Your task to perform on an android device: Open Google Maps Image 0: 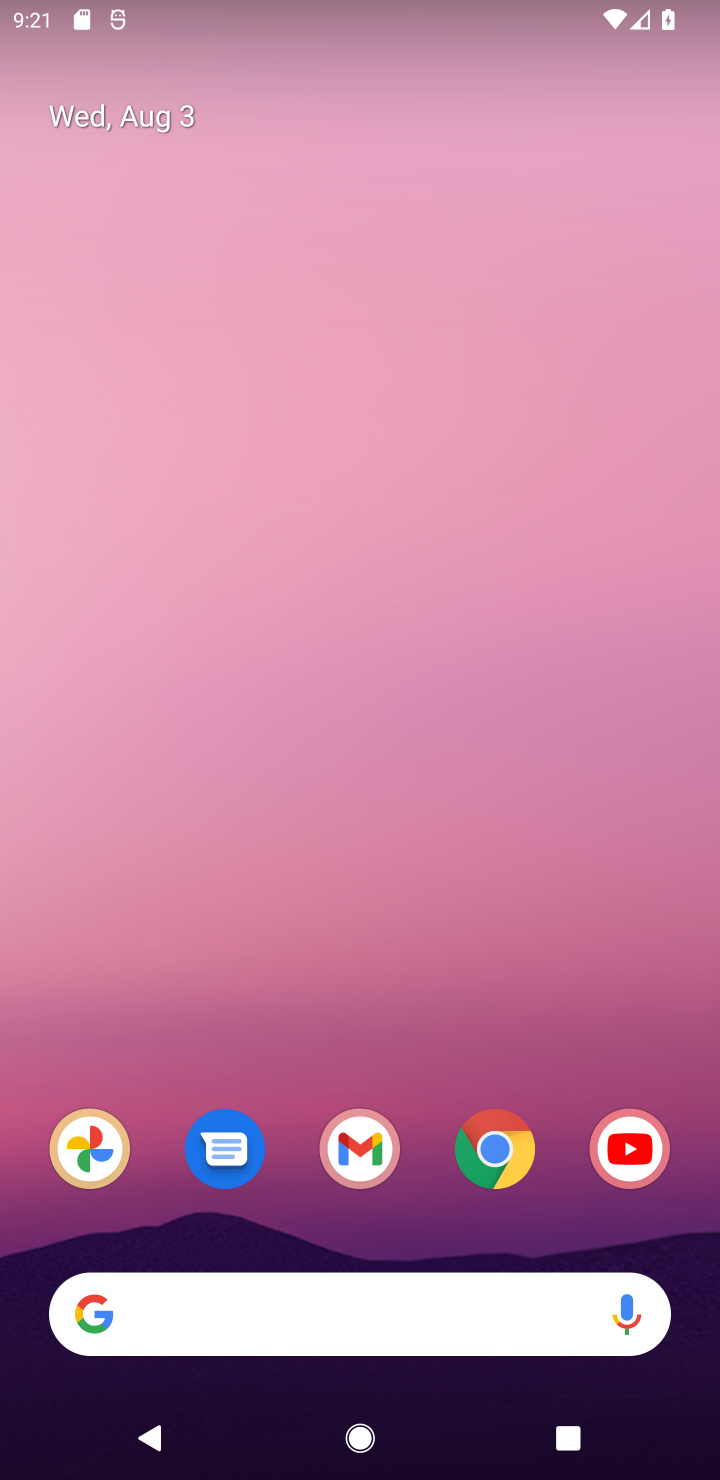
Step 0: drag from (421, 1067) to (237, 224)
Your task to perform on an android device: Open Google Maps Image 1: 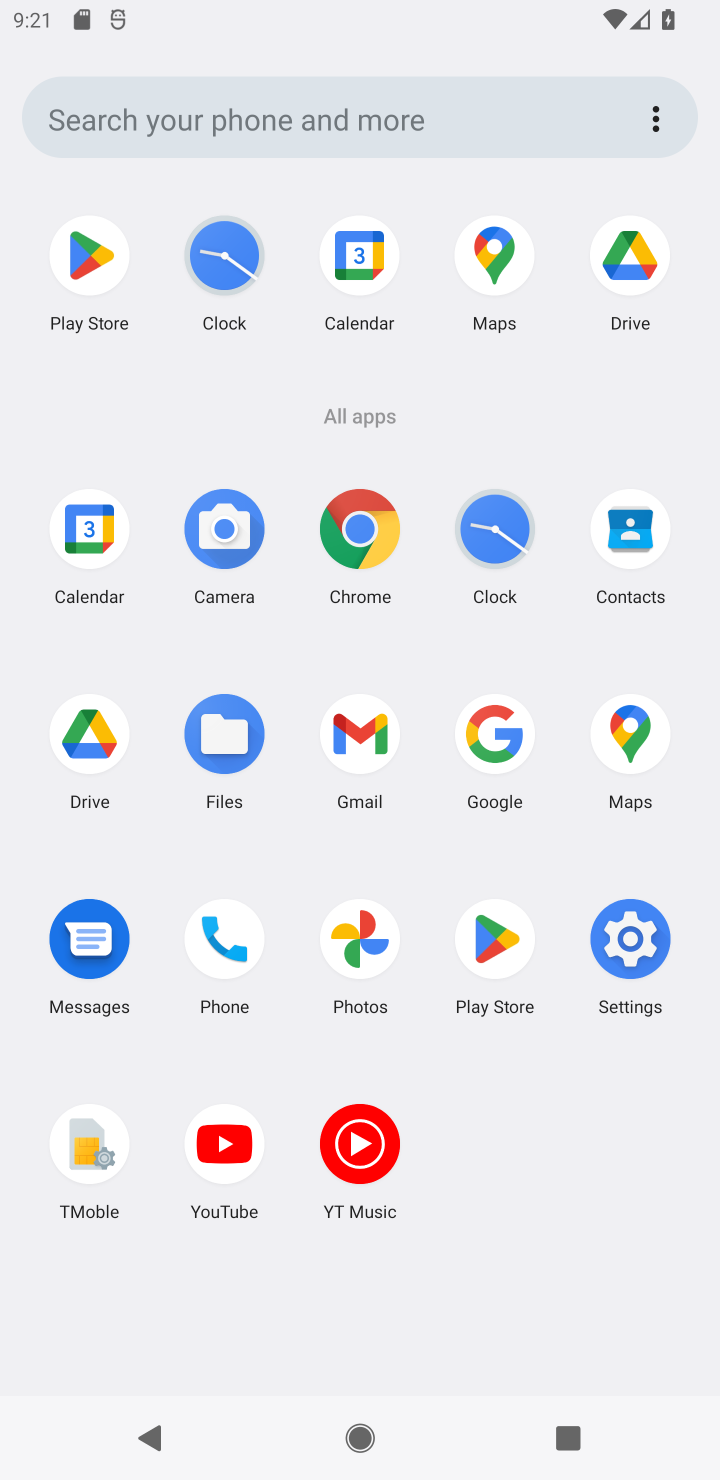
Step 1: click (508, 237)
Your task to perform on an android device: Open Google Maps Image 2: 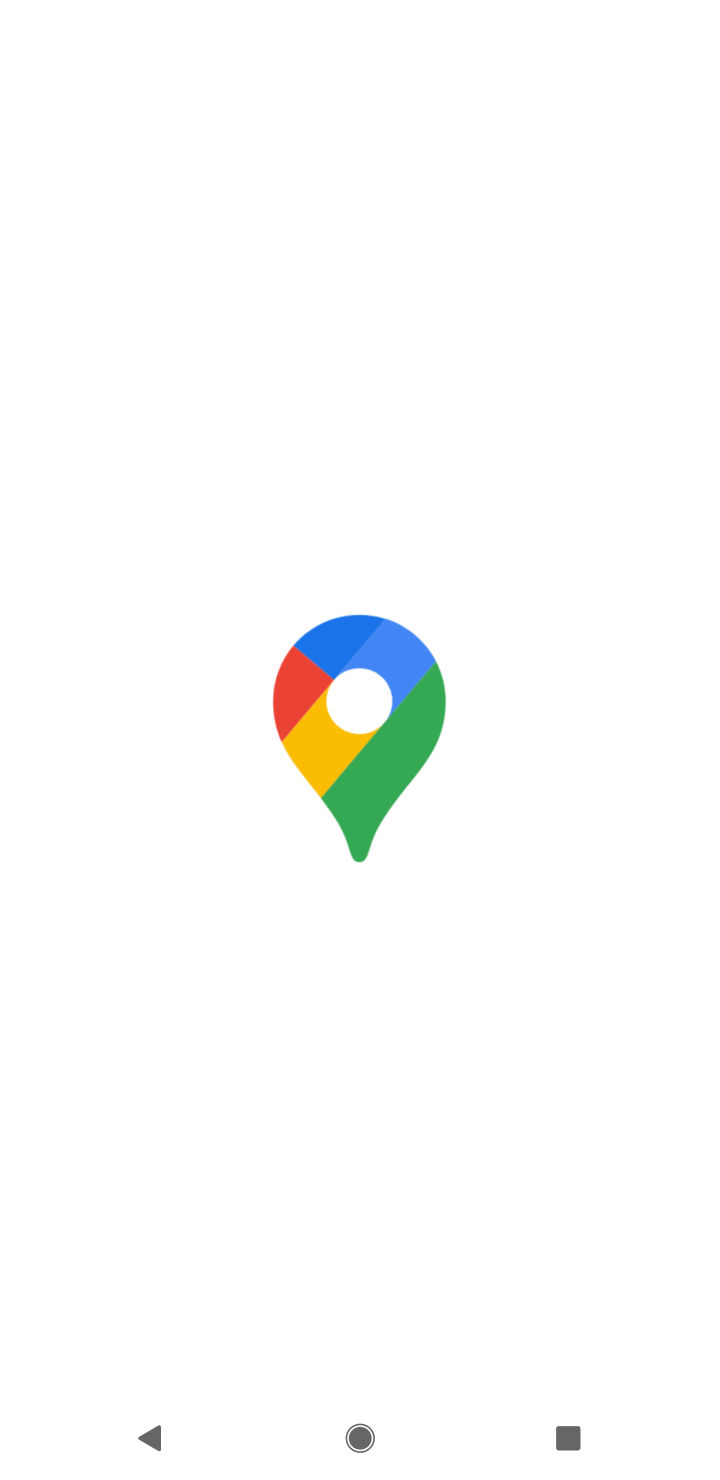
Step 2: task complete